Your task to perform on an android device: What's the news today? Image 0: 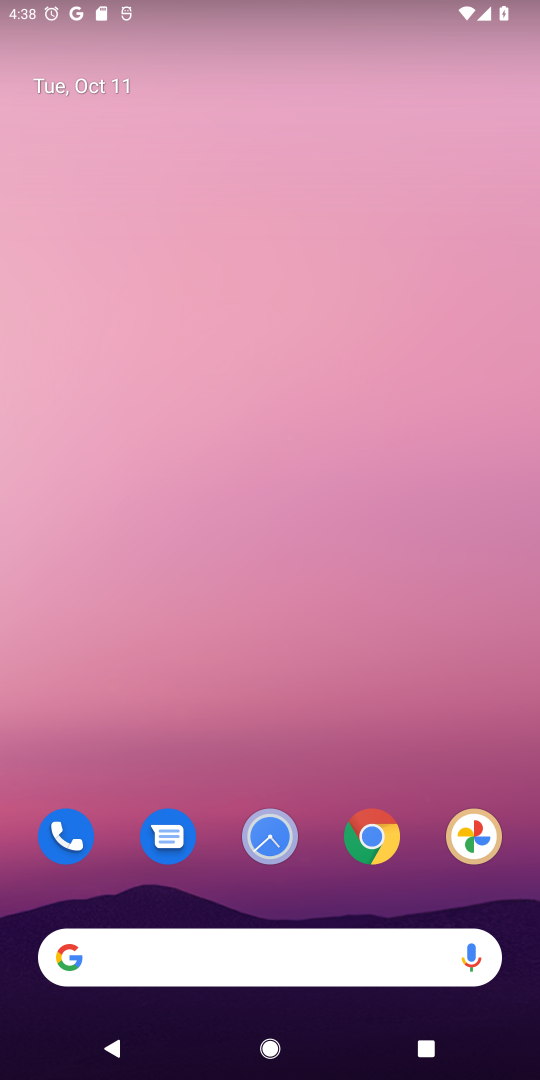
Step 0: click (217, 973)
Your task to perform on an android device: What's the news today? Image 1: 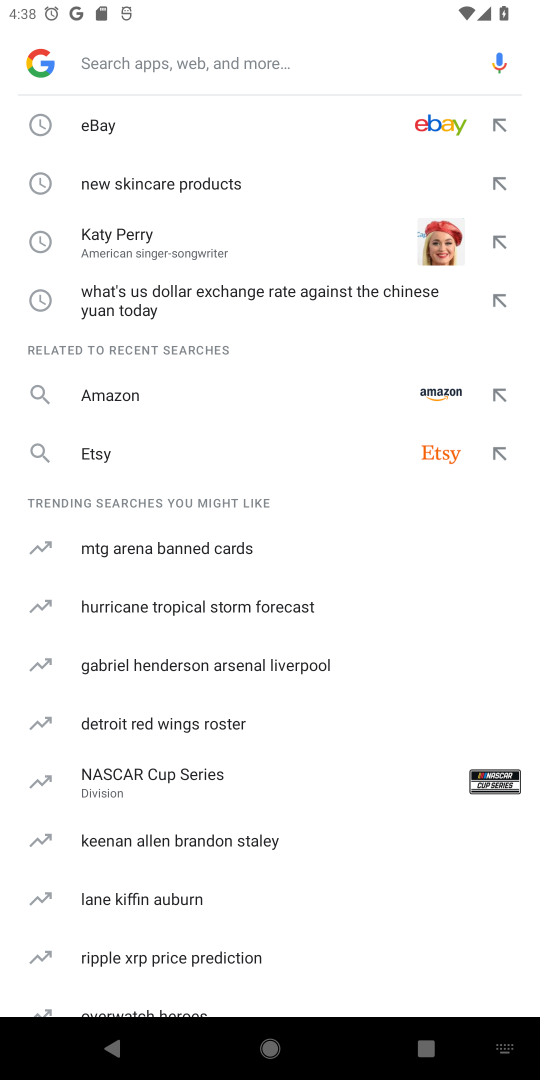
Step 1: type "What's the news today?"
Your task to perform on an android device: What's the news today? Image 2: 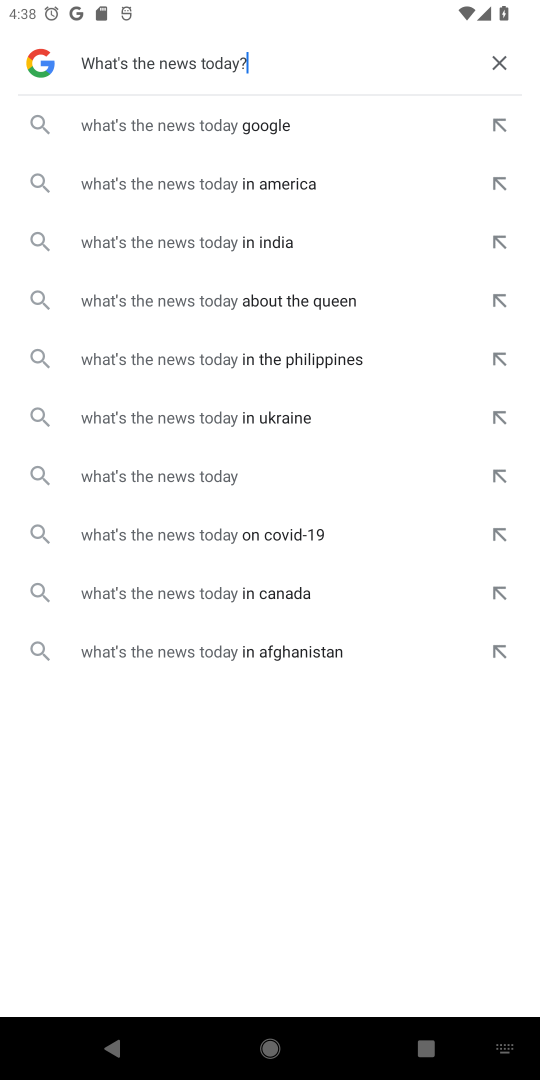
Step 2: click (241, 115)
Your task to perform on an android device: What's the news today? Image 3: 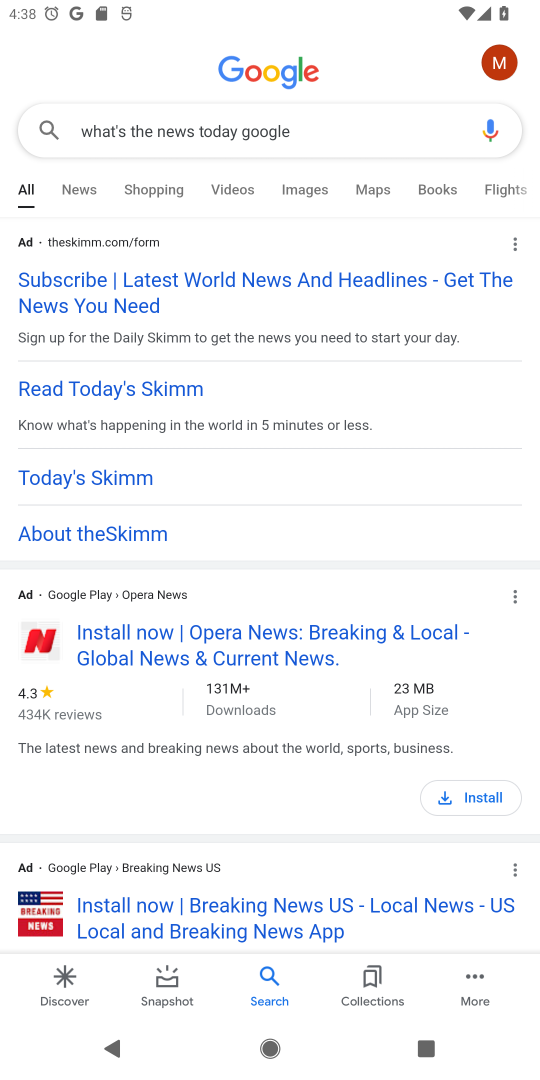
Step 3: task complete